Your task to perform on an android device: What's the weather? Image 0: 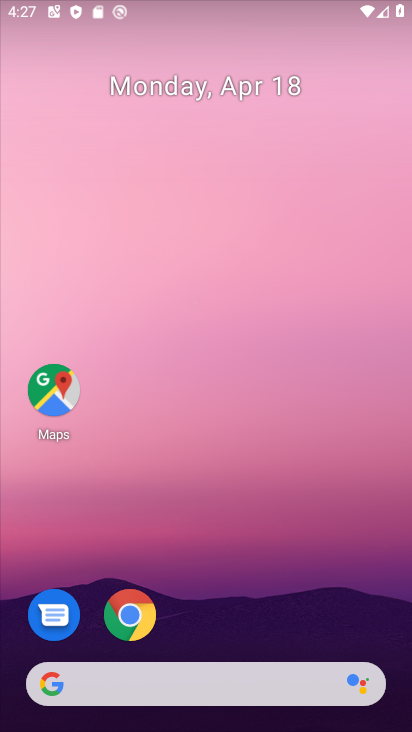
Step 0: drag from (228, 74) to (232, 314)
Your task to perform on an android device: What's the weather? Image 1: 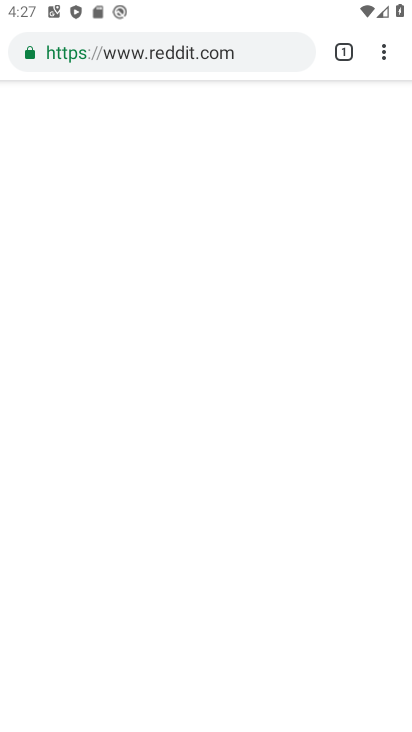
Step 1: press home button
Your task to perform on an android device: What's the weather? Image 2: 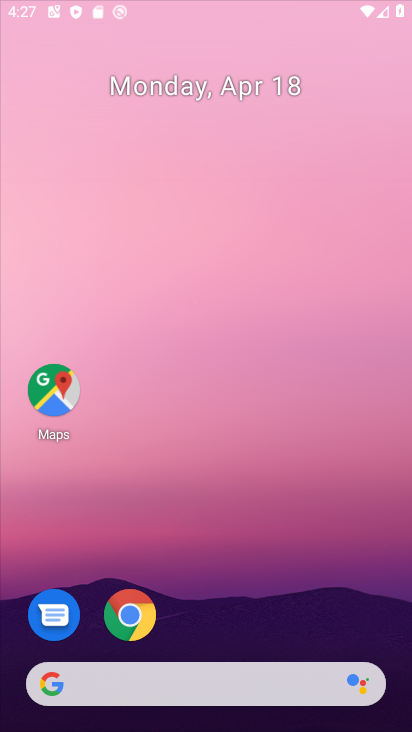
Step 2: drag from (180, 1) to (196, 265)
Your task to perform on an android device: What's the weather? Image 3: 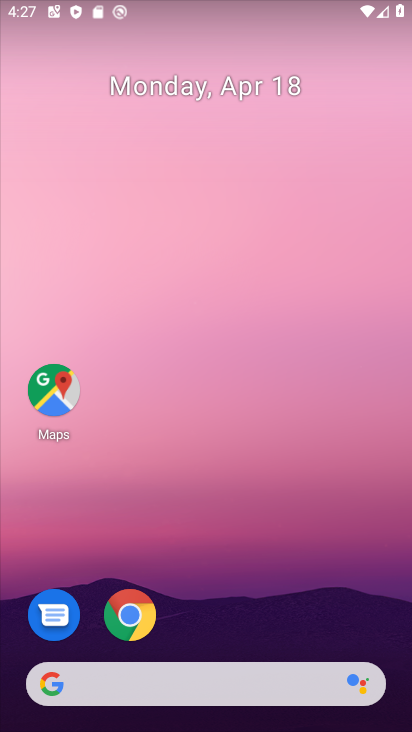
Step 3: drag from (13, 186) to (408, 162)
Your task to perform on an android device: What's the weather? Image 4: 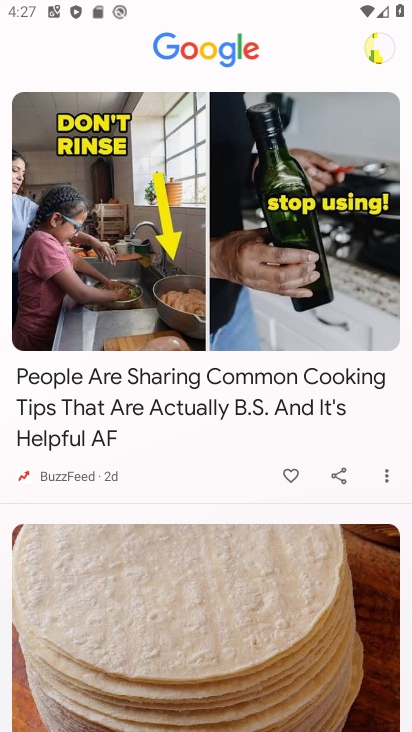
Step 4: drag from (404, 413) to (32, 396)
Your task to perform on an android device: What's the weather? Image 5: 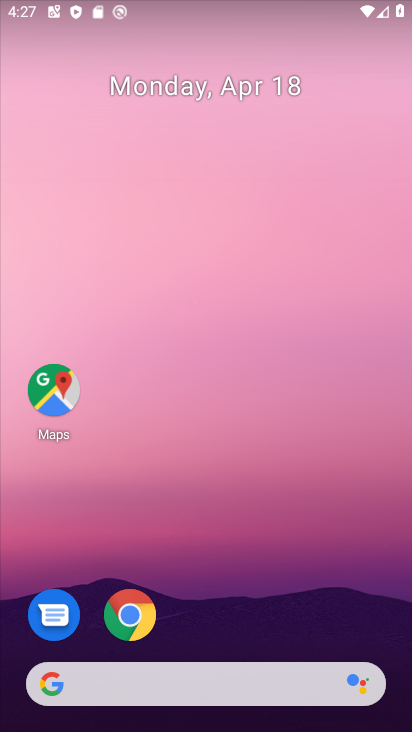
Step 5: click (113, 615)
Your task to perform on an android device: What's the weather? Image 6: 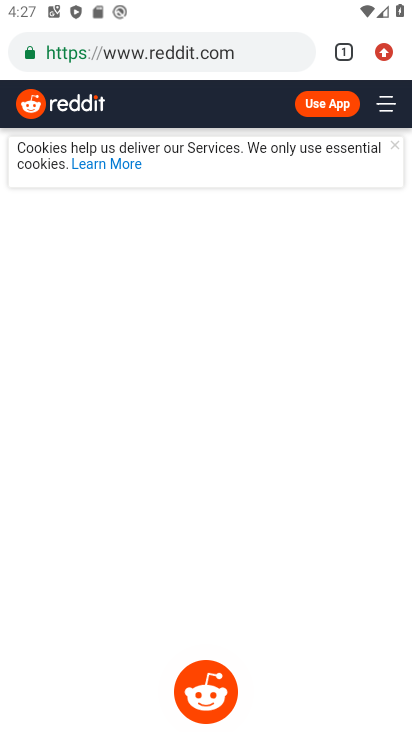
Step 6: click (233, 52)
Your task to perform on an android device: What's the weather? Image 7: 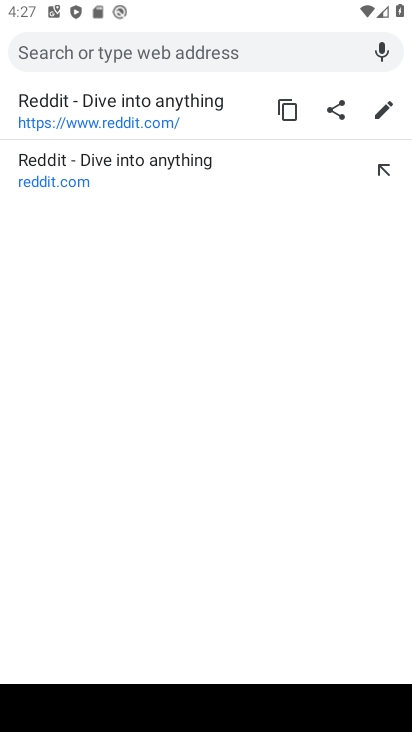
Step 7: type "weatherr"
Your task to perform on an android device: What's the weather? Image 8: 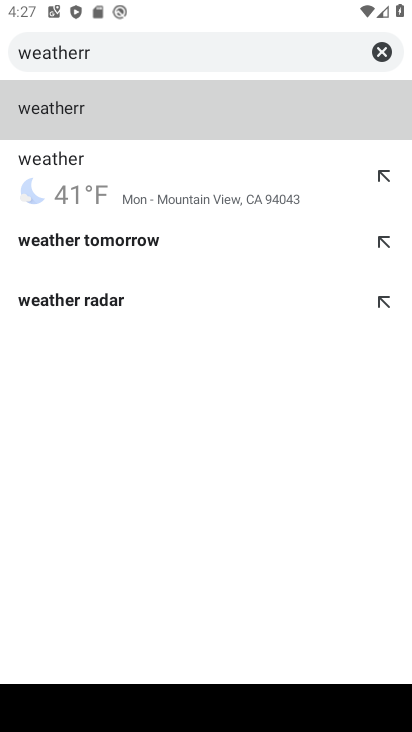
Step 8: click (65, 165)
Your task to perform on an android device: What's the weather? Image 9: 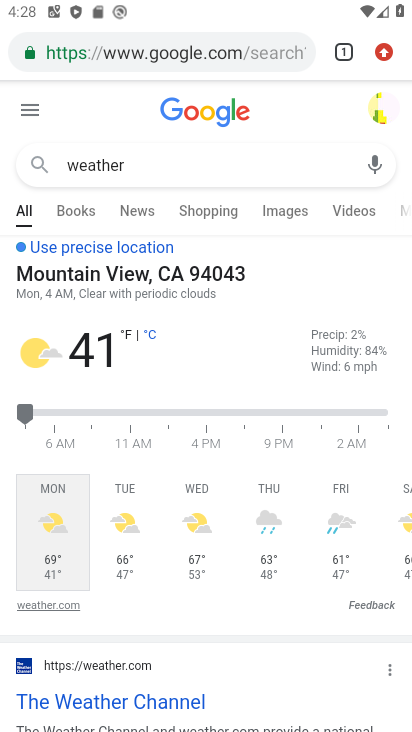
Step 9: task complete